Your task to perform on an android device: Open wifi settings Image 0: 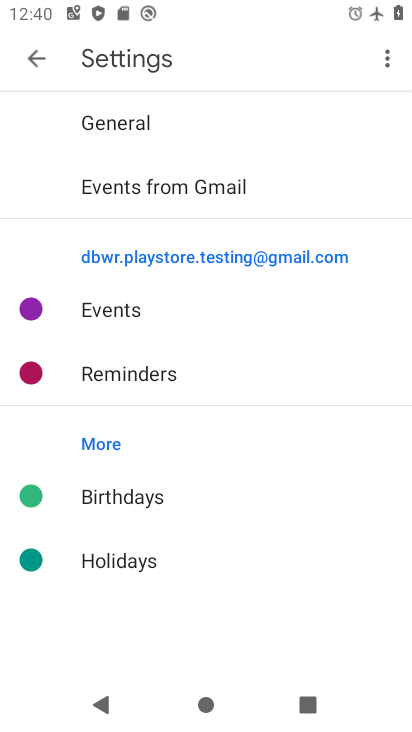
Step 0: press home button
Your task to perform on an android device: Open wifi settings Image 1: 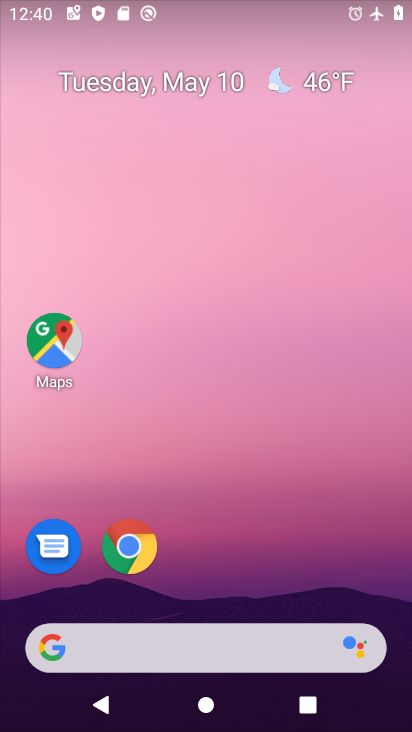
Step 1: drag from (334, 600) to (349, 24)
Your task to perform on an android device: Open wifi settings Image 2: 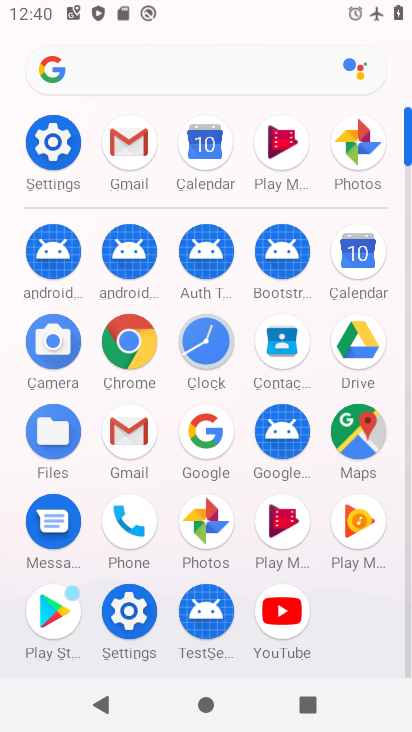
Step 2: click (49, 159)
Your task to perform on an android device: Open wifi settings Image 3: 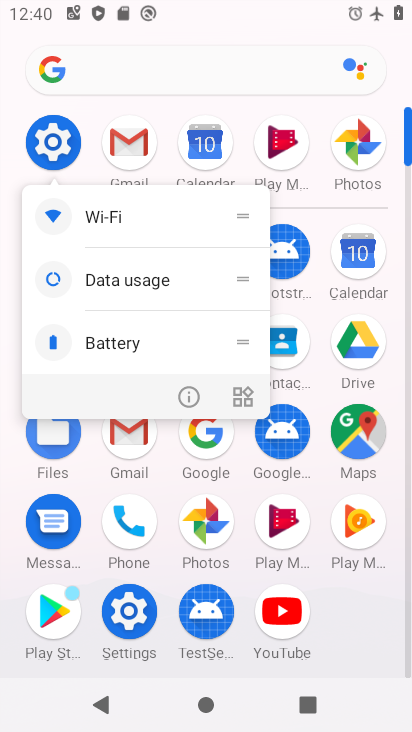
Step 3: click (76, 218)
Your task to perform on an android device: Open wifi settings Image 4: 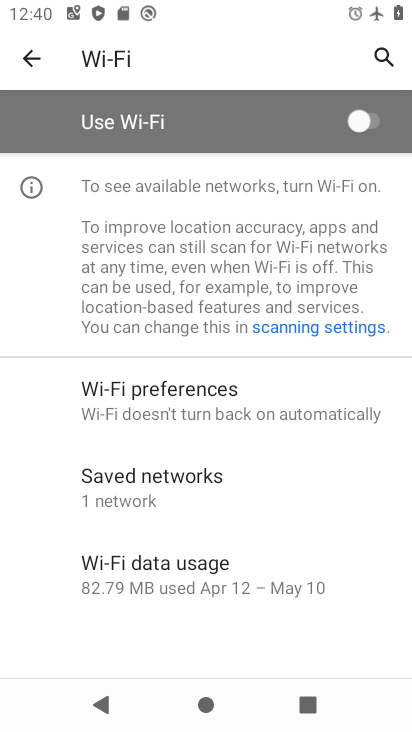
Step 4: task complete